Your task to perform on an android device: Go to Google maps Image 0: 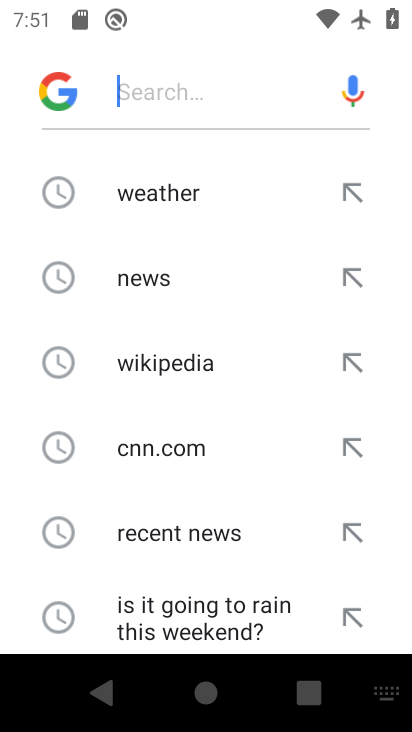
Step 0: press home button
Your task to perform on an android device: Go to Google maps Image 1: 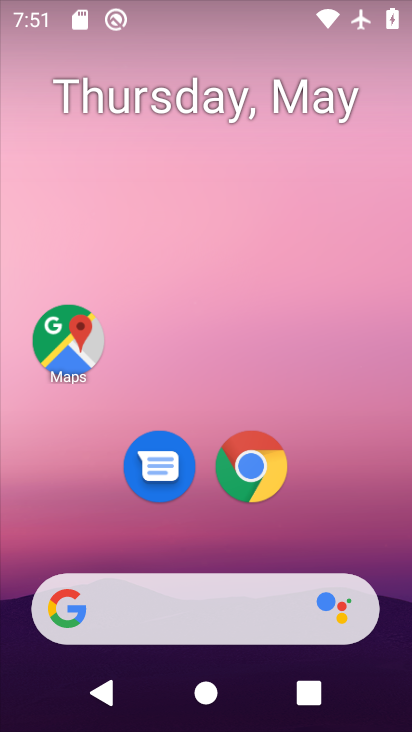
Step 1: click (84, 329)
Your task to perform on an android device: Go to Google maps Image 2: 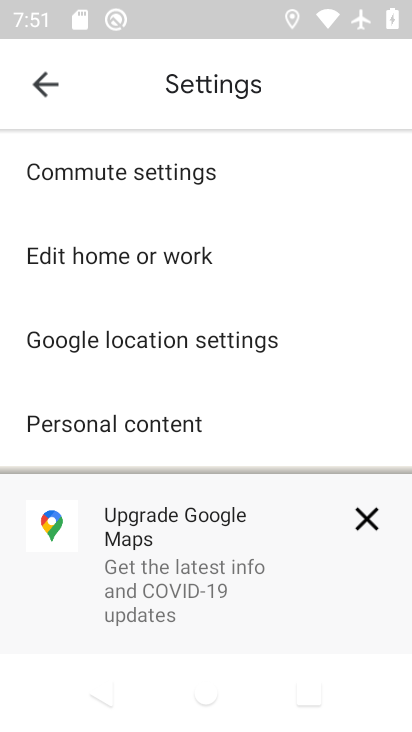
Step 2: task complete